Your task to perform on an android device: turn on notifications settings in the gmail app Image 0: 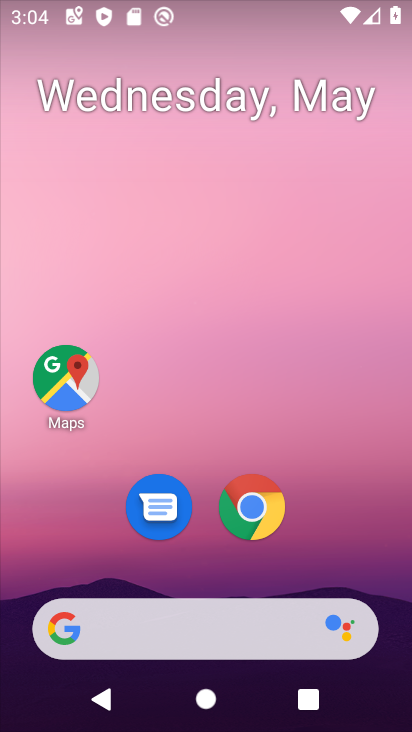
Step 0: drag from (173, 534) to (241, 57)
Your task to perform on an android device: turn on notifications settings in the gmail app Image 1: 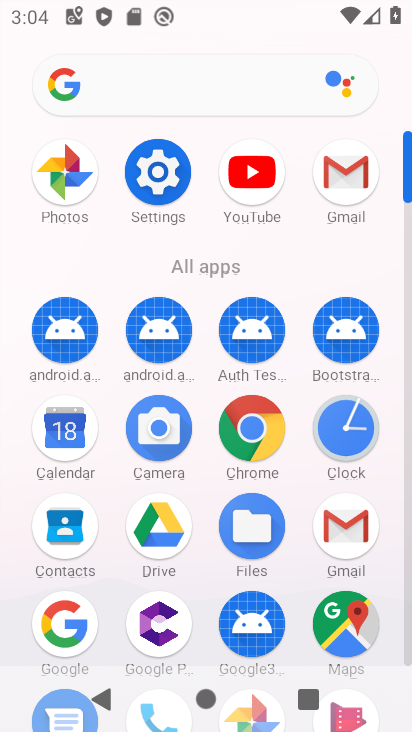
Step 1: click (337, 169)
Your task to perform on an android device: turn on notifications settings in the gmail app Image 2: 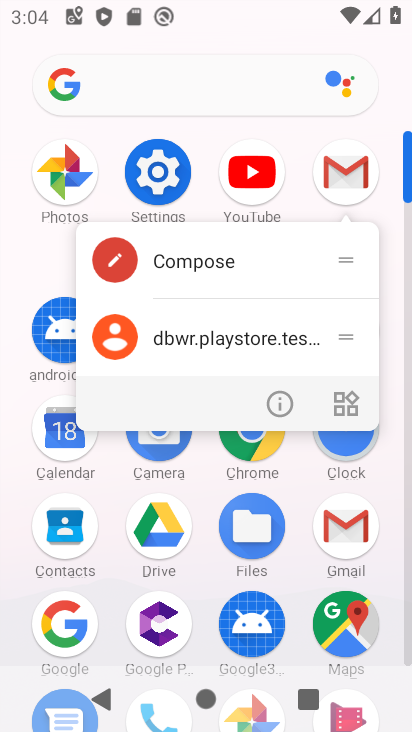
Step 2: click (274, 404)
Your task to perform on an android device: turn on notifications settings in the gmail app Image 3: 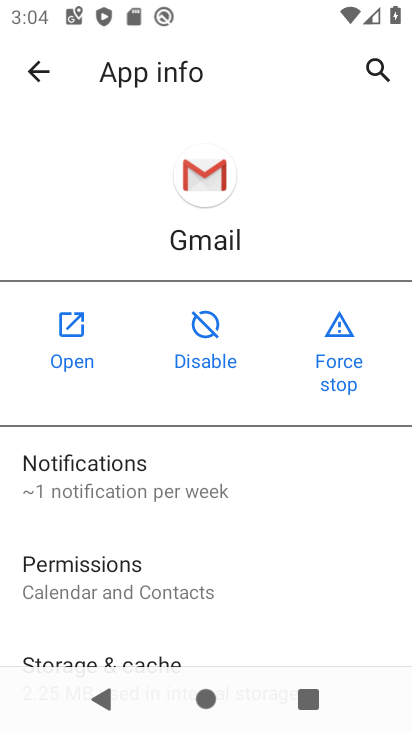
Step 3: click (89, 472)
Your task to perform on an android device: turn on notifications settings in the gmail app Image 4: 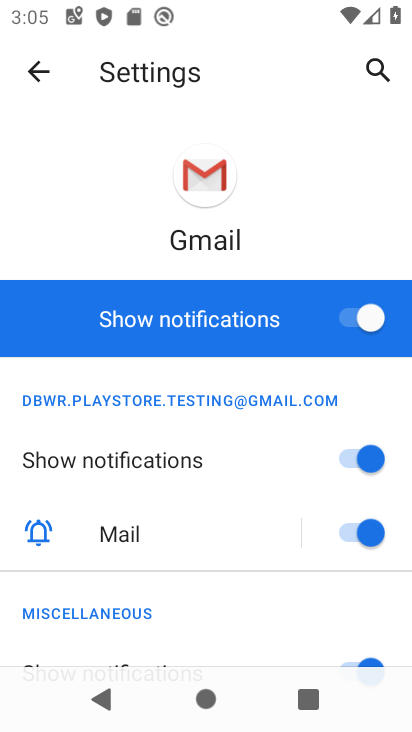
Step 4: task complete